Your task to perform on an android device: read, delete, or share a saved page in the chrome app Image 0: 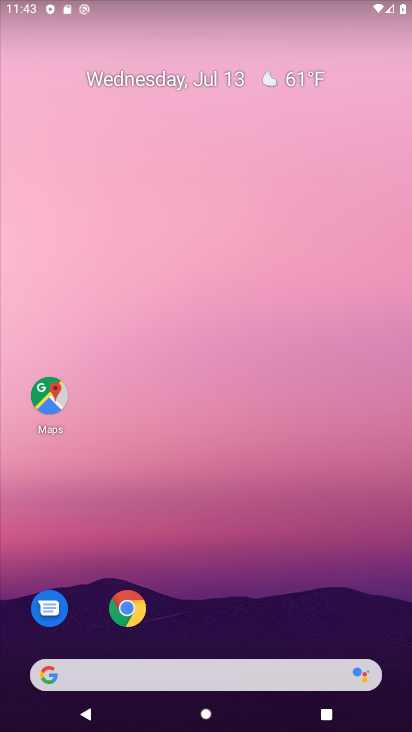
Step 0: drag from (209, 534) to (200, 124)
Your task to perform on an android device: read, delete, or share a saved page in the chrome app Image 1: 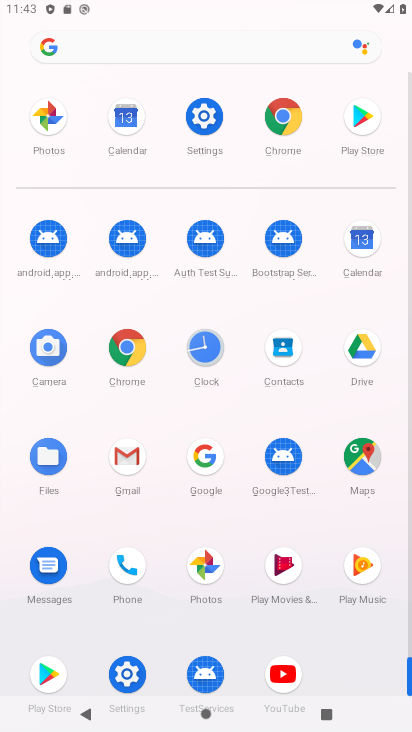
Step 1: click (125, 346)
Your task to perform on an android device: read, delete, or share a saved page in the chrome app Image 2: 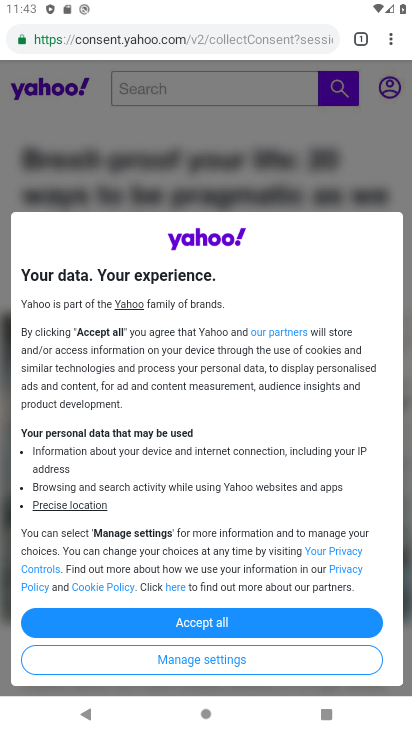
Step 2: drag from (256, 496) to (265, 236)
Your task to perform on an android device: read, delete, or share a saved page in the chrome app Image 3: 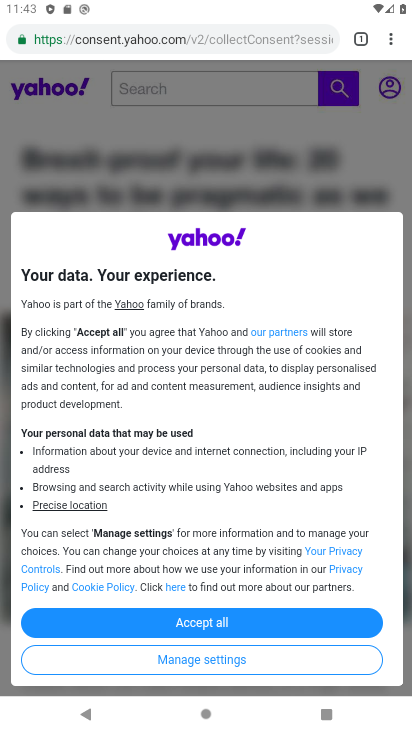
Step 3: click (391, 42)
Your task to perform on an android device: read, delete, or share a saved page in the chrome app Image 4: 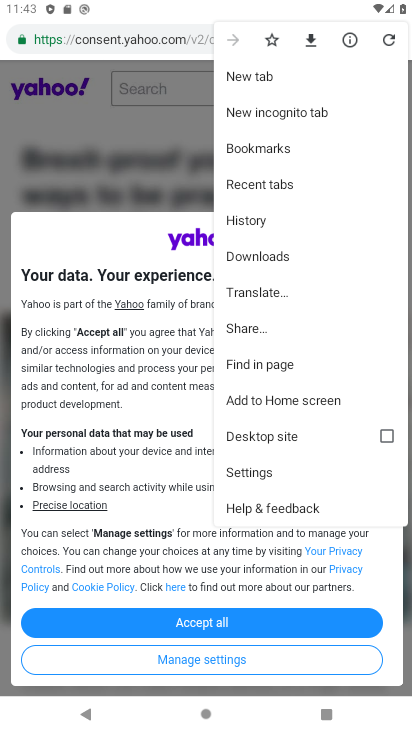
Step 4: drag from (186, 542) to (155, 292)
Your task to perform on an android device: read, delete, or share a saved page in the chrome app Image 5: 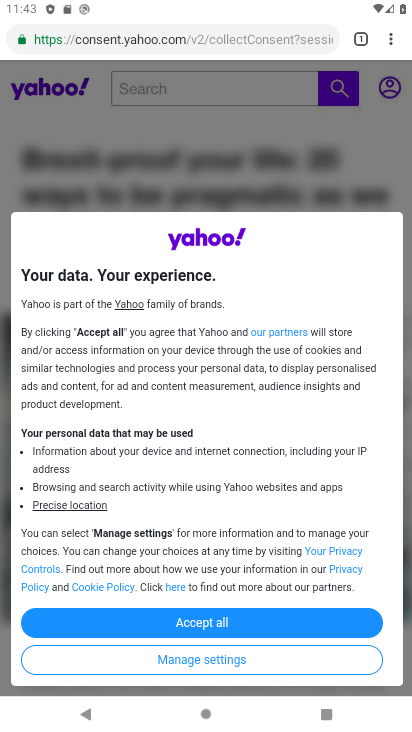
Step 5: click (211, 432)
Your task to perform on an android device: read, delete, or share a saved page in the chrome app Image 6: 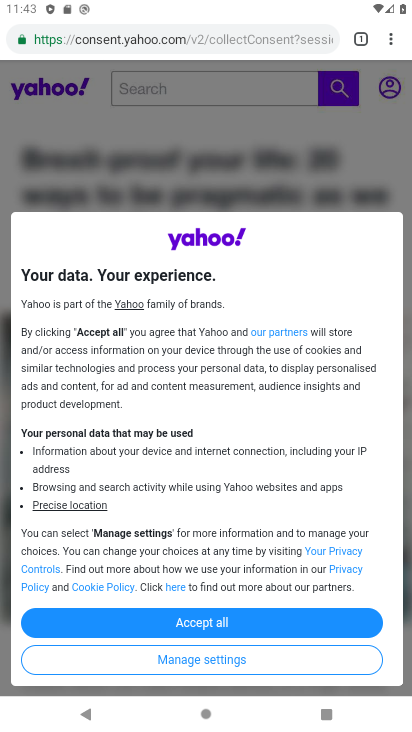
Step 6: drag from (221, 583) to (231, 465)
Your task to perform on an android device: read, delete, or share a saved page in the chrome app Image 7: 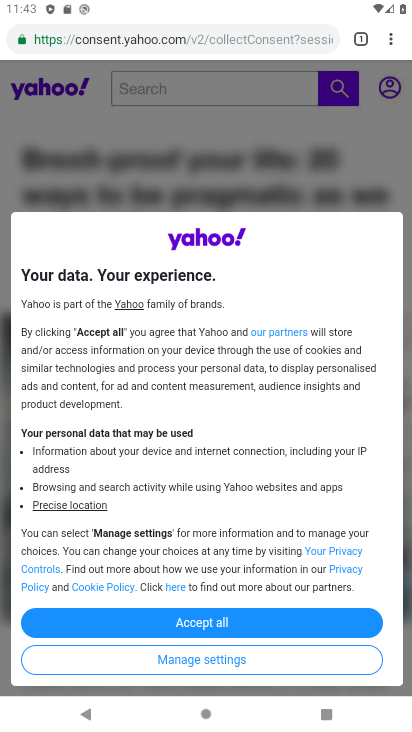
Step 7: drag from (216, 565) to (223, 452)
Your task to perform on an android device: read, delete, or share a saved page in the chrome app Image 8: 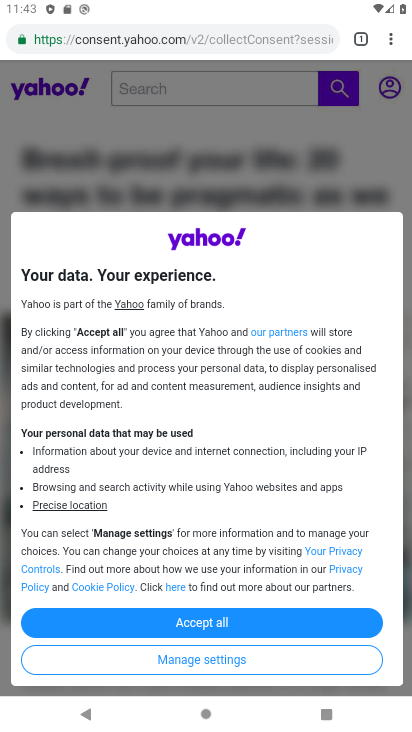
Step 8: drag from (201, 552) to (227, 360)
Your task to perform on an android device: read, delete, or share a saved page in the chrome app Image 9: 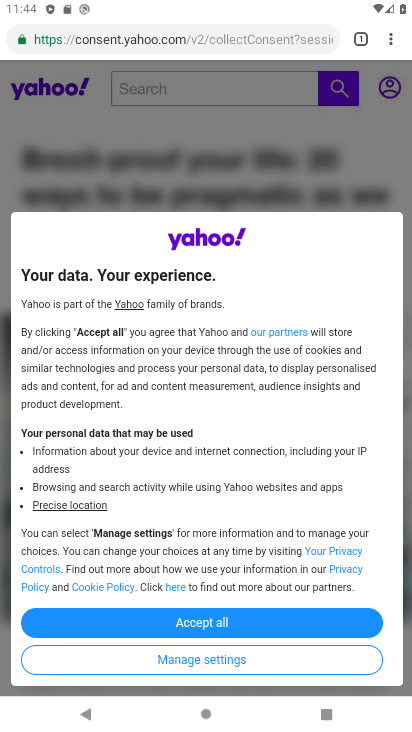
Step 9: drag from (223, 538) to (223, 393)
Your task to perform on an android device: read, delete, or share a saved page in the chrome app Image 10: 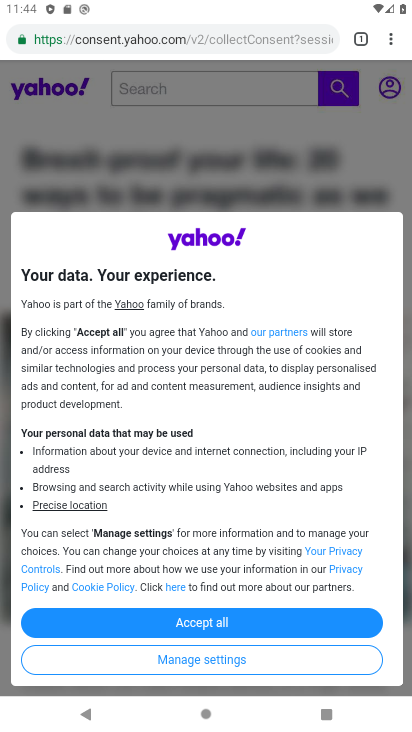
Step 10: drag from (195, 566) to (197, 345)
Your task to perform on an android device: read, delete, or share a saved page in the chrome app Image 11: 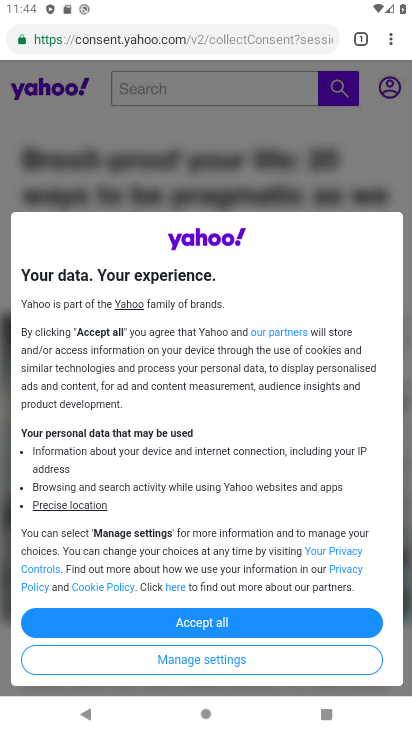
Step 11: drag from (179, 559) to (235, 273)
Your task to perform on an android device: read, delete, or share a saved page in the chrome app Image 12: 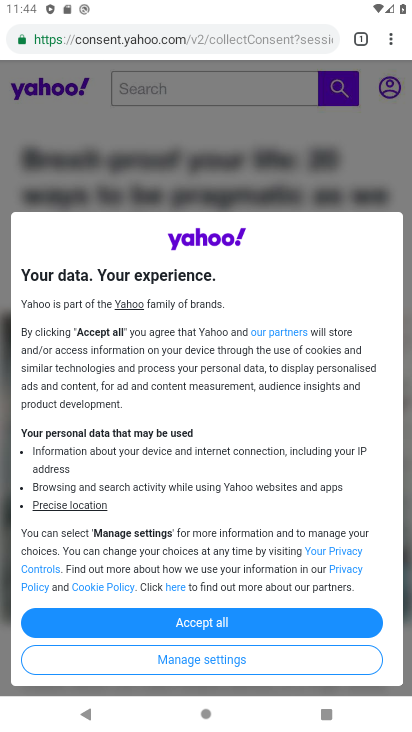
Step 12: drag from (202, 270) to (218, 704)
Your task to perform on an android device: read, delete, or share a saved page in the chrome app Image 13: 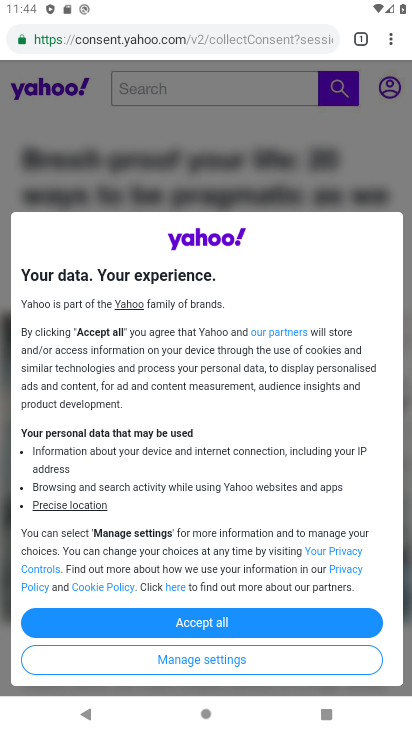
Step 13: drag from (222, 500) to (222, 291)
Your task to perform on an android device: read, delete, or share a saved page in the chrome app Image 14: 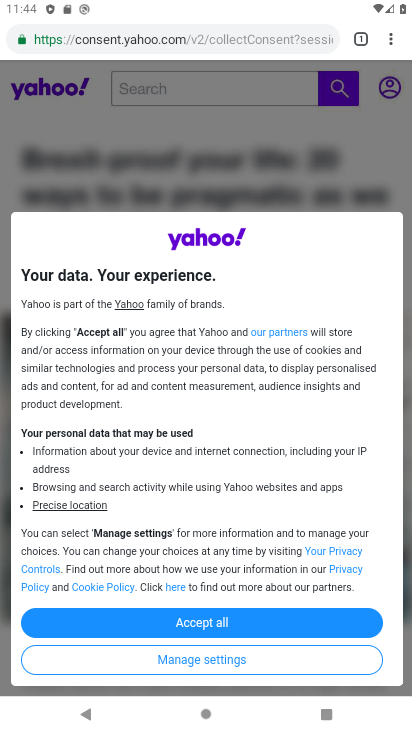
Step 14: click (386, 43)
Your task to perform on an android device: read, delete, or share a saved page in the chrome app Image 15: 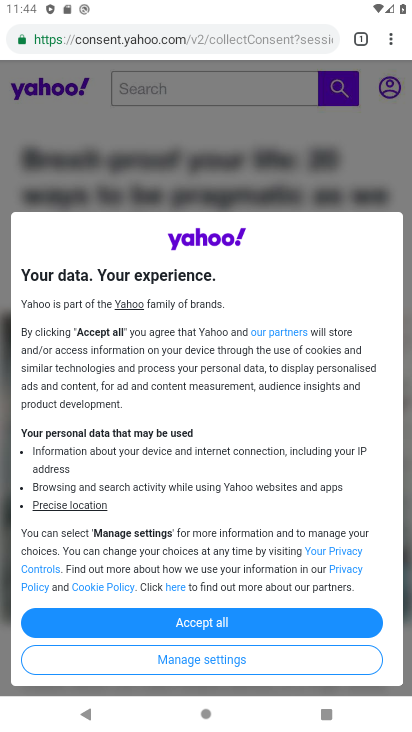
Step 15: click (386, 30)
Your task to perform on an android device: read, delete, or share a saved page in the chrome app Image 16: 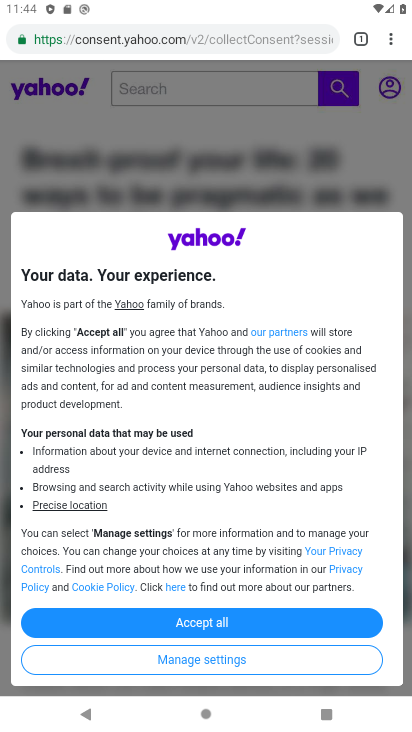
Step 16: drag from (387, 39) to (297, 219)
Your task to perform on an android device: read, delete, or share a saved page in the chrome app Image 17: 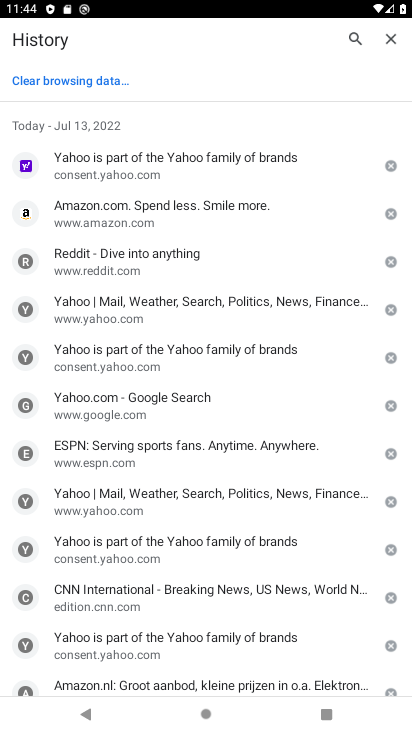
Step 17: drag from (154, 322) to (166, 235)
Your task to perform on an android device: read, delete, or share a saved page in the chrome app Image 18: 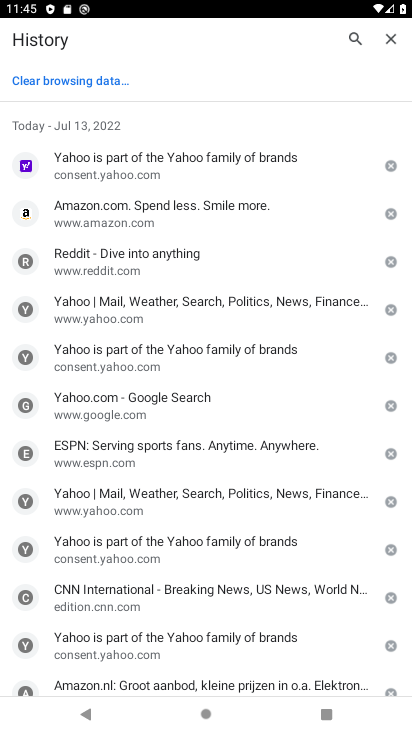
Step 18: drag from (211, 465) to (213, 297)
Your task to perform on an android device: read, delete, or share a saved page in the chrome app Image 19: 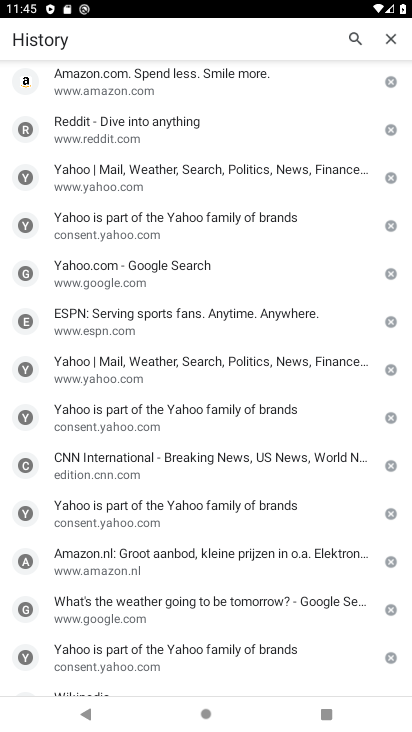
Step 19: drag from (142, 143) to (269, 590)
Your task to perform on an android device: read, delete, or share a saved page in the chrome app Image 20: 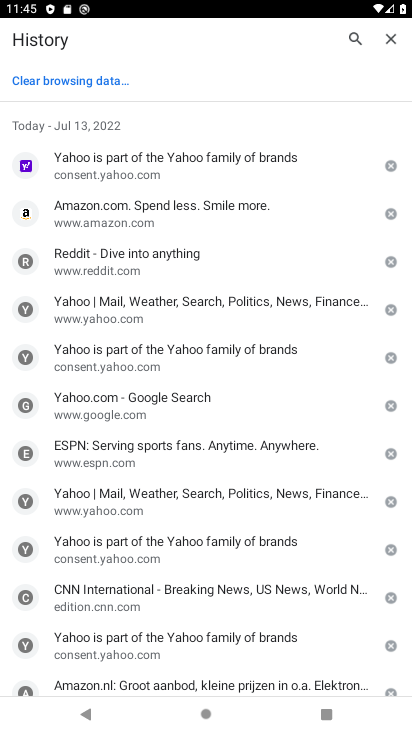
Step 20: drag from (129, 331) to (283, 609)
Your task to perform on an android device: read, delete, or share a saved page in the chrome app Image 21: 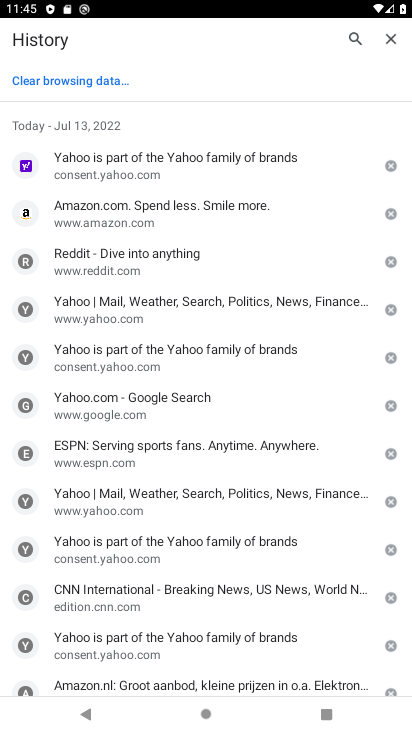
Step 21: drag from (160, 303) to (286, 618)
Your task to perform on an android device: read, delete, or share a saved page in the chrome app Image 22: 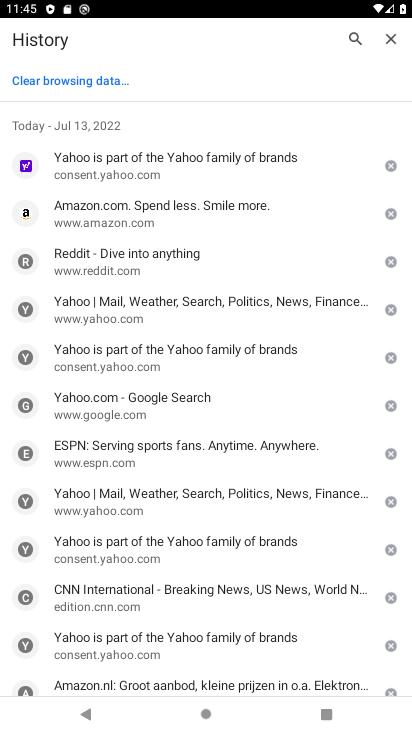
Step 22: drag from (115, 572) to (156, 439)
Your task to perform on an android device: read, delete, or share a saved page in the chrome app Image 23: 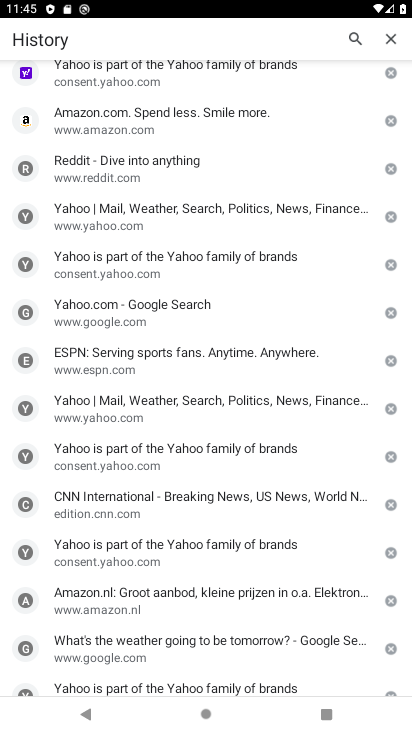
Step 23: drag from (195, 410) to (355, 703)
Your task to perform on an android device: read, delete, or share a saved page in the chrome app Image 24: 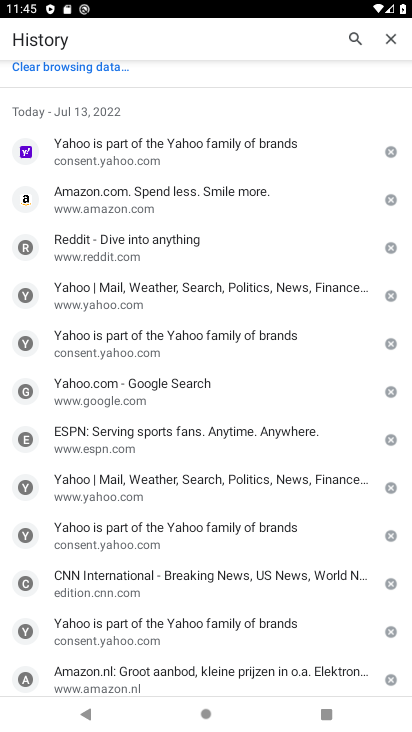
Step 24: drag from (193, 323) to (411, 725)
Your task to perform on an android device: read, delete, or share a saved page in the chrome app Image 25: 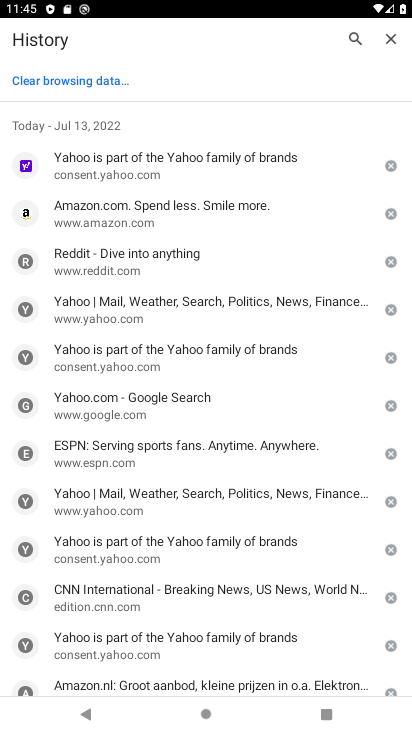
Step 25: click (390, 47)
Your task to perform on an android device: read, delete, or share a saved page in the chrome app Image 26: 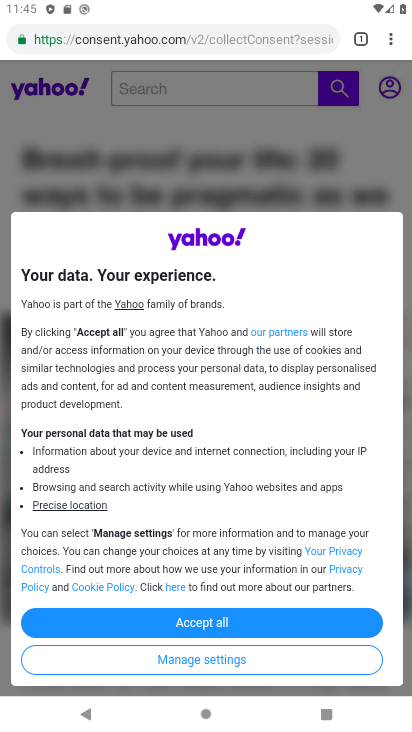
Step 26: click (394, 41)
Your task to perform on an android device: read, delete, or share a saved page in the chrome app Image 27: 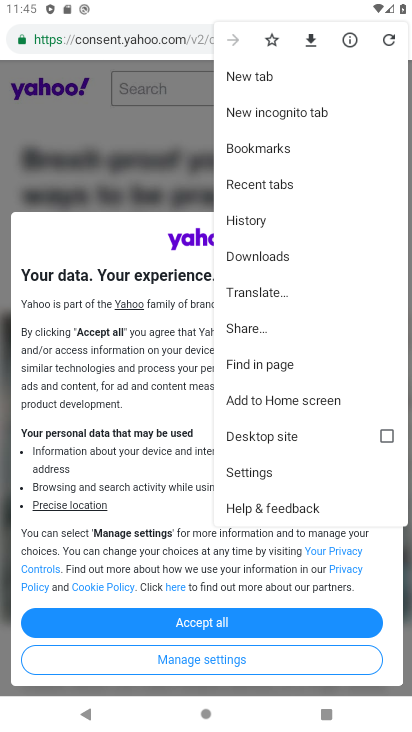
Step 27: click (282, 156)
Your task to perform on an android device: read, delete, or share a saved page in the chrome app Image 28: 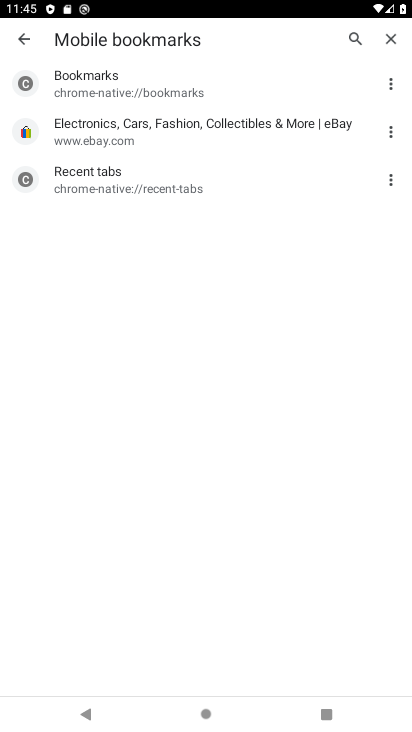
Step 28: drag from (241, 480) to (236, 254)
Your task to perform on an android device: read, delete, or share a saved page in the chrome app Image 29: 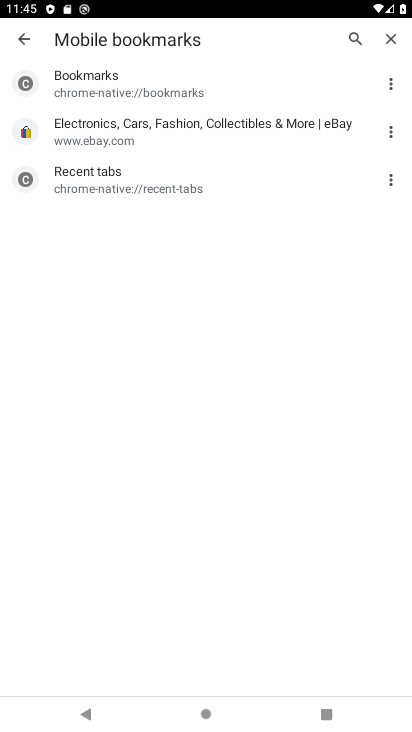
Step 29: click (393, 129)
Your task to perform on an android device: read, delete, or share a saved page in the chrome app Image 30: 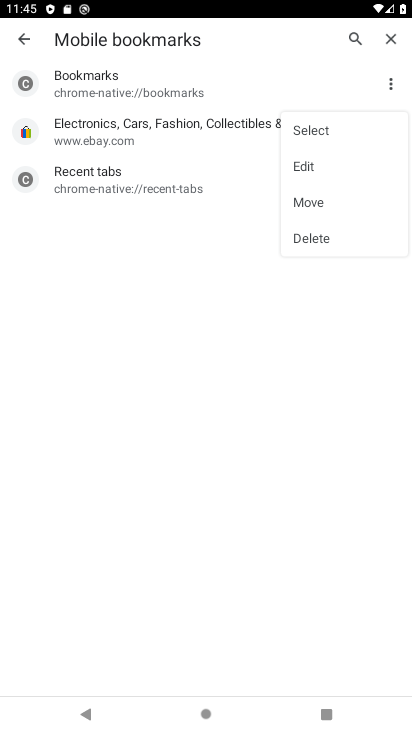
Step 30: click (322, 235)
Your task to perform on an android device: read, delete, or share a saved page in the chrome app Image 31: 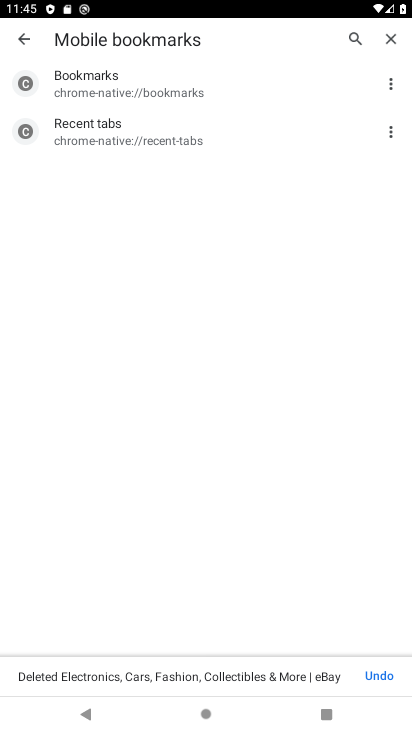
Step 31: task complete